Your task to perform on an android device: Is it going to rain this weekend? Image 0: 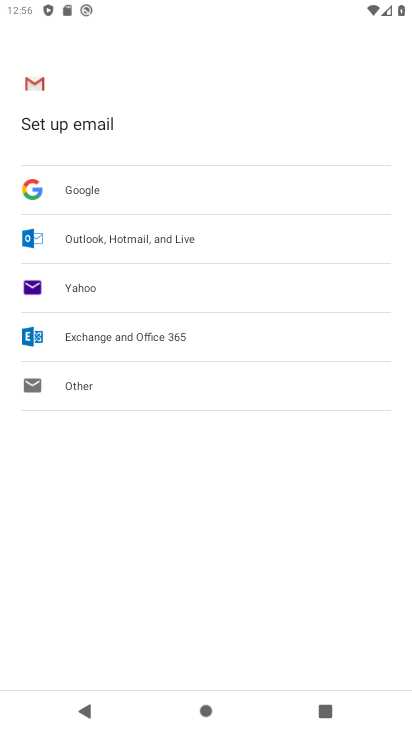
Step 0: press home button
Your task to perform on an android device: Is it going to rain this weekend? Image 1: 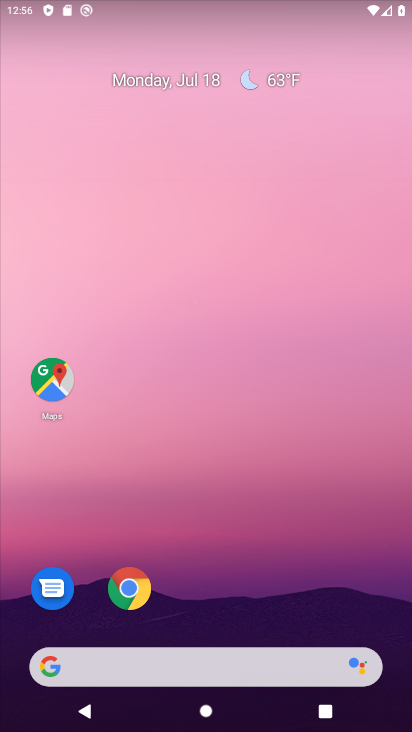
Step 1: click (255, 80)
Your task to perform on an android device: Is it going to rain this weekend? Image 2: 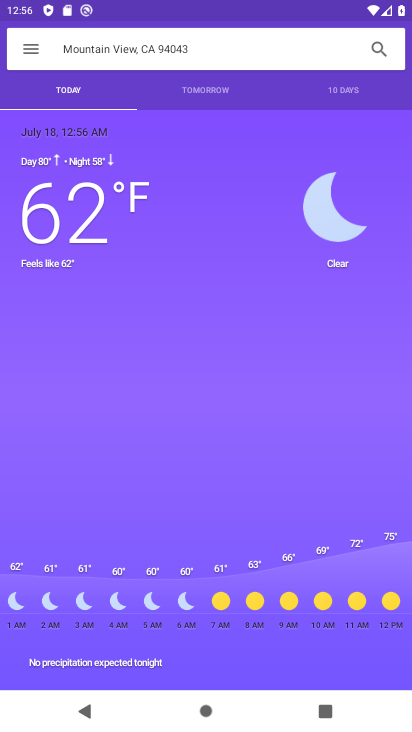
Step 2: click (349, 89)
Your task to perform on an android device: Is it going to rain this weekend? Image 3: 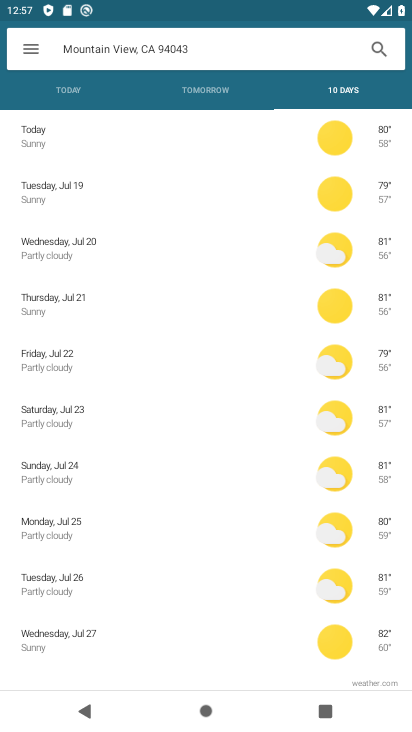
Step 3: task complete